Your task to perform on an android device: turn pop-ups off in chrome Image 0: 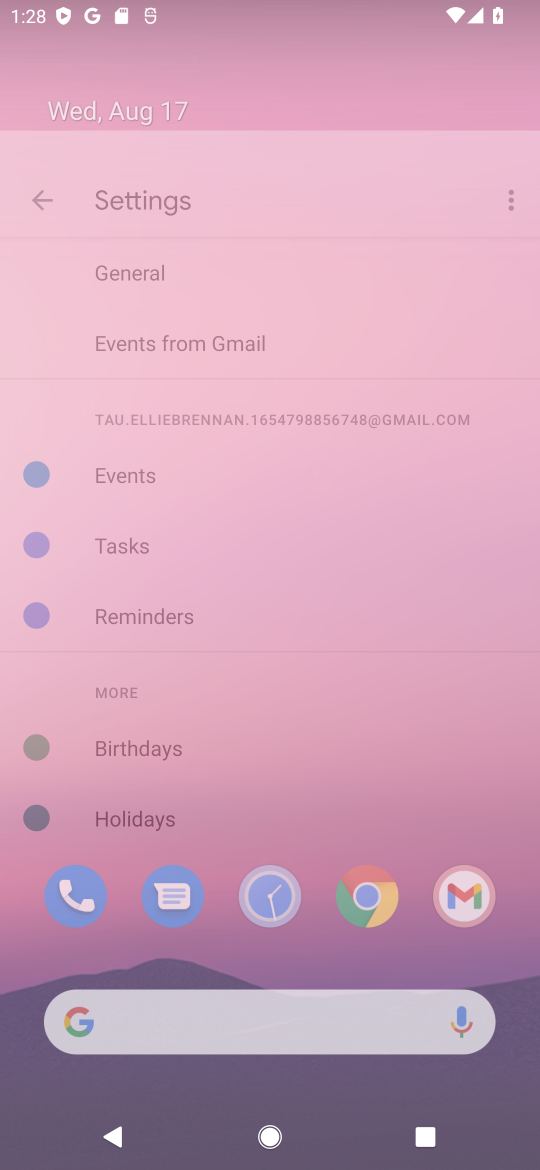
Step 0: press home button
Your task to perform on an android device: turn pop-ups off in chrome Image 1: 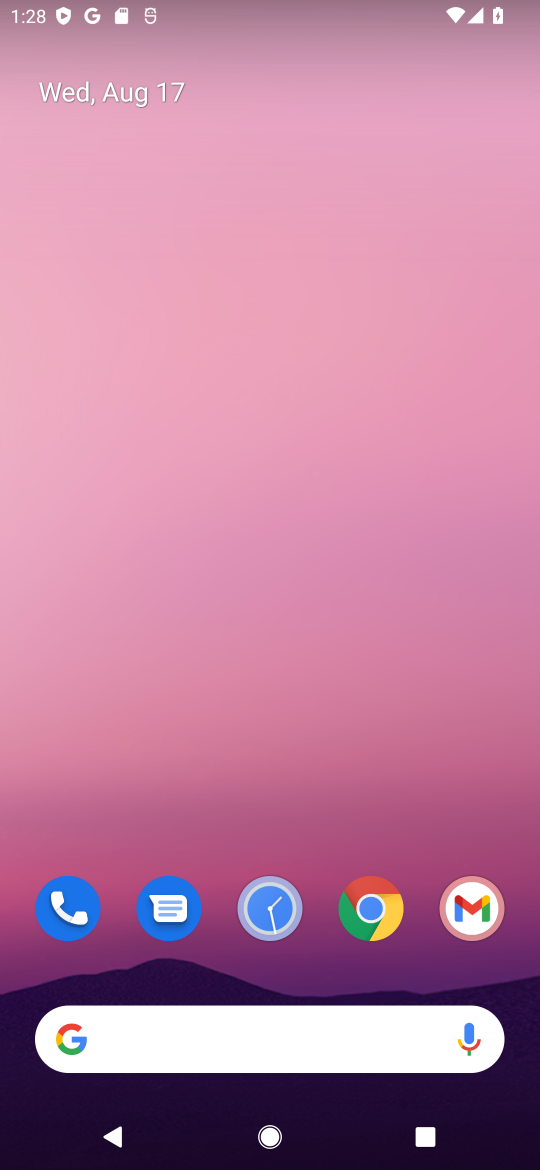
Step 1: click (368, 917)
Your task to perform on an android device: turn pop-ups off in chrome Image 2: 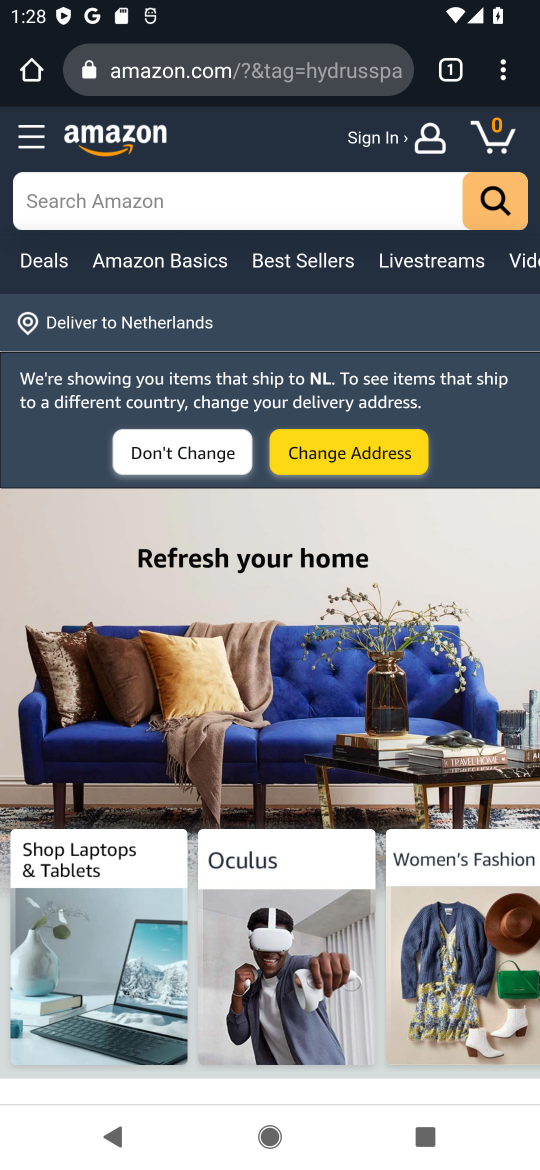
Step 2: drag from (495, 77) to (292, 877)
Your task to perform on an android device: turn pop-ups off in chrome Image 3: 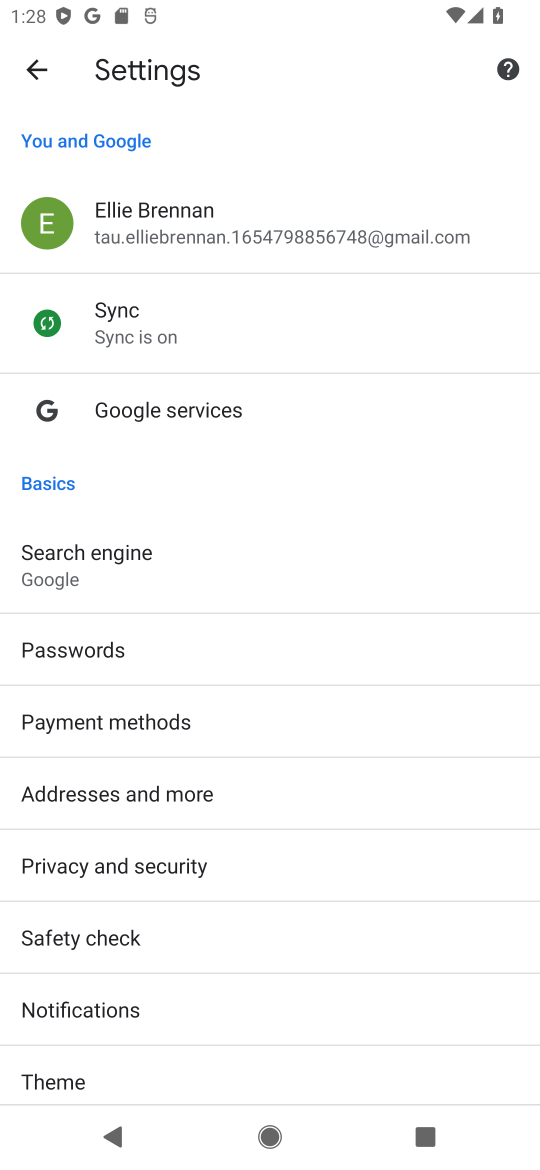
Step 3: drag from (283, 1068) to (294, 265)
Your task to perform on an android device: turn pop-ups off in chrome Image 4: 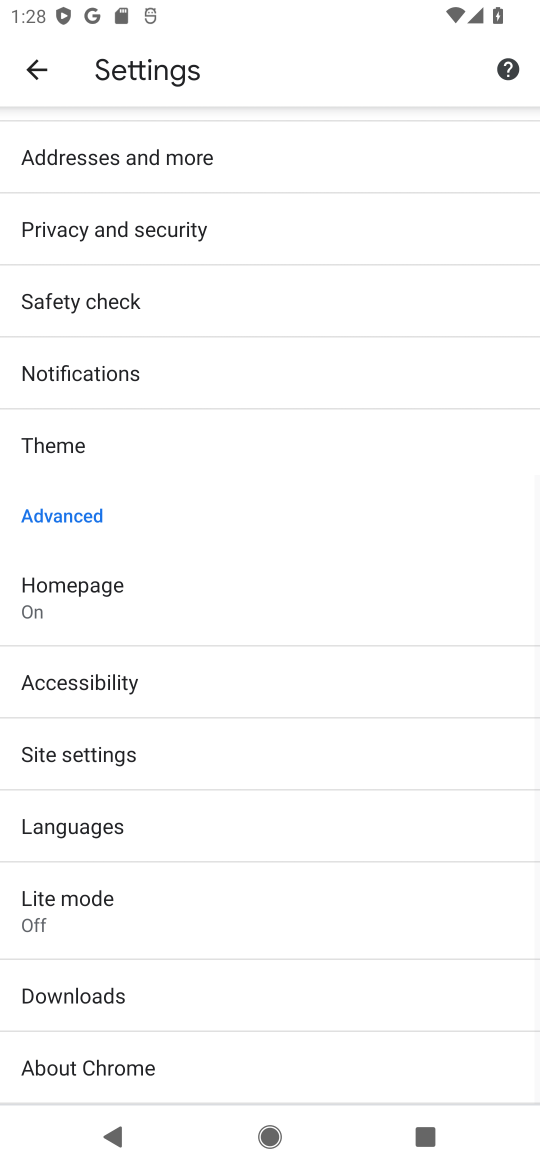
Step 4: click (79, 758)
Your task to perform on an android device: turn pop-ups off in chrome Image 5: 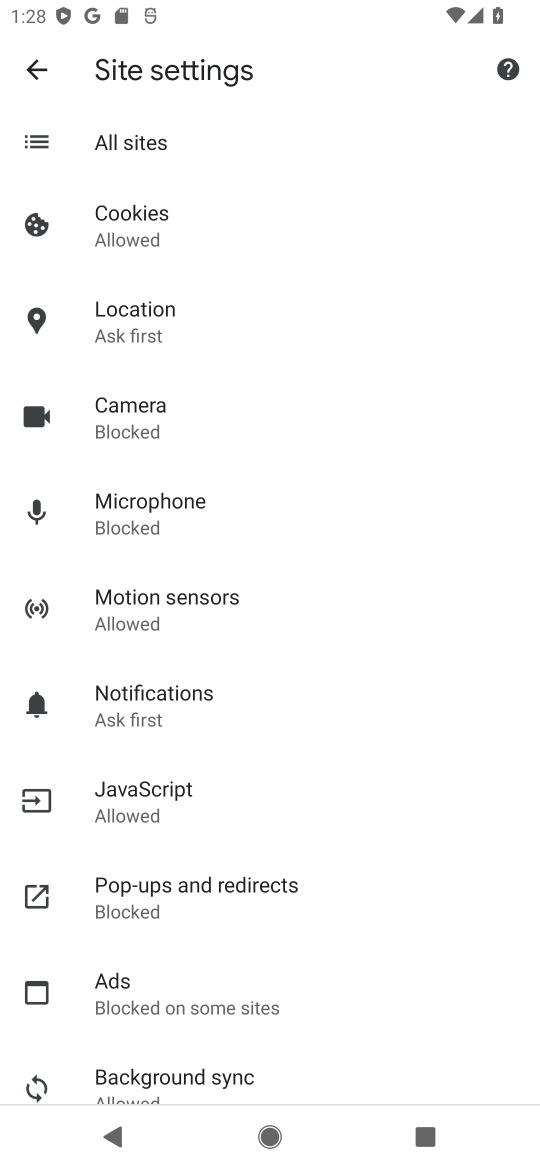
Step 5: click (165, 889)
Your task to perform on an android device: turn pop-ups off in chrome Image 6: 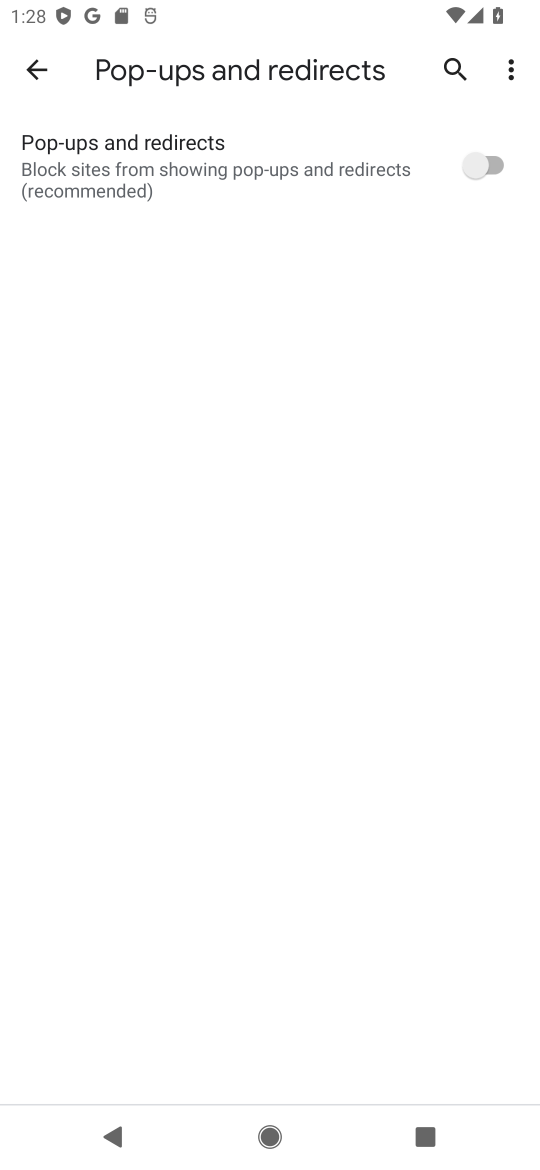
Step 6: task complete